Your task to perform on an android device: Empty the shopping cart on target. Add "logitech g910" to the cart on target, then select checkout. Image 0: 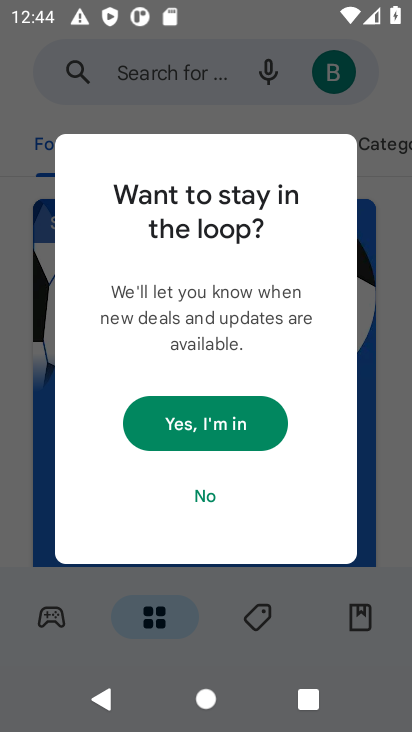
Step 0: press home button
Your task to perform on an android device: Empty the shopping cart on target. Add "logitech g910" to the cart on target, then select checkout. Image 1: 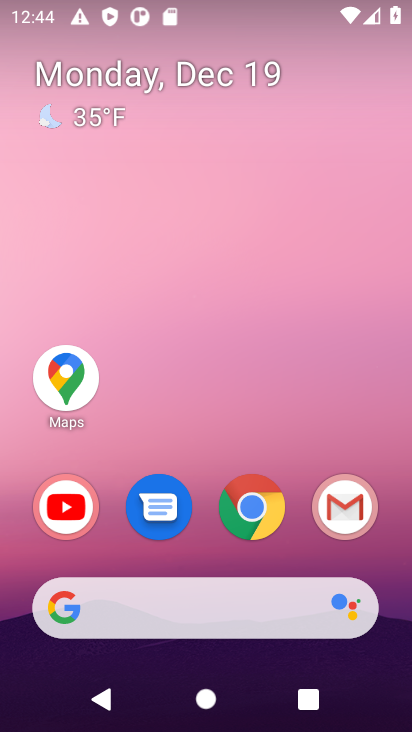
Step 1: click (263, 511)
Your task to perform on an android device: Empty the shopping cart on target. Add "logitech g910" to the cart on target, then select checkout. Image 2: 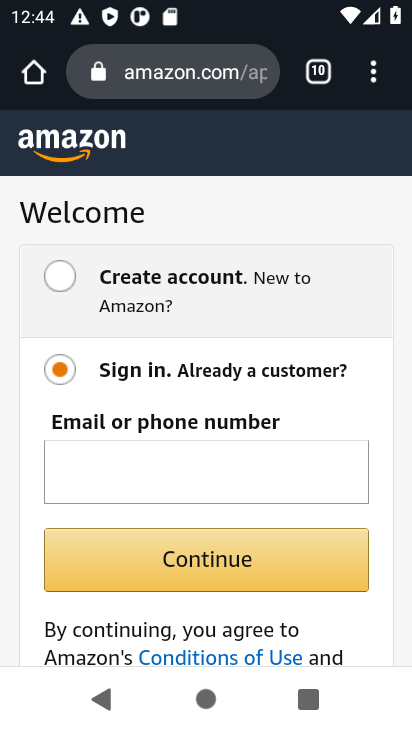
Step 2: click (162, 66)
Your task to perform on an android device: Empty the shopping cart on target. Add "logitech g910" to the cart on target, then select checkout. Image 3: 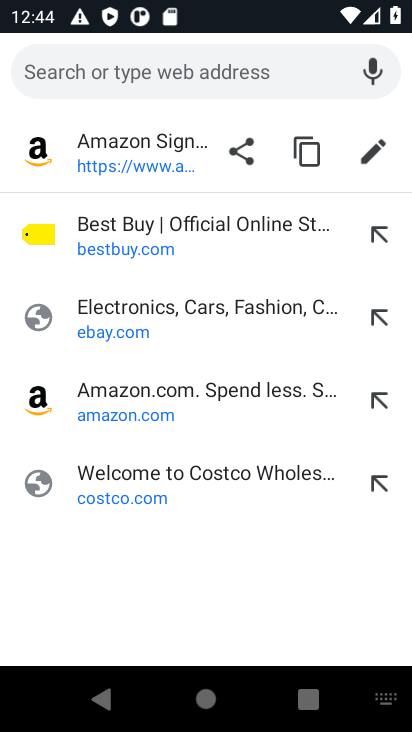
Step 3: type "target.com"
Your task to perform on an android device: Empty the shopping cart on target. Add "logitech g910" to the cart on target, then select checkout. Image 4: 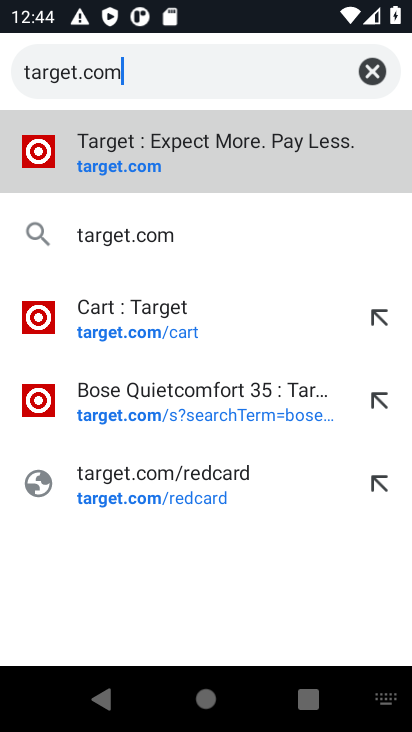
Step 4: click (95, 164)
Your task to perform on an android device: Empty the shopping cart on target. Add "logitech g910" to the cart on target, then select checkout. Image 5: 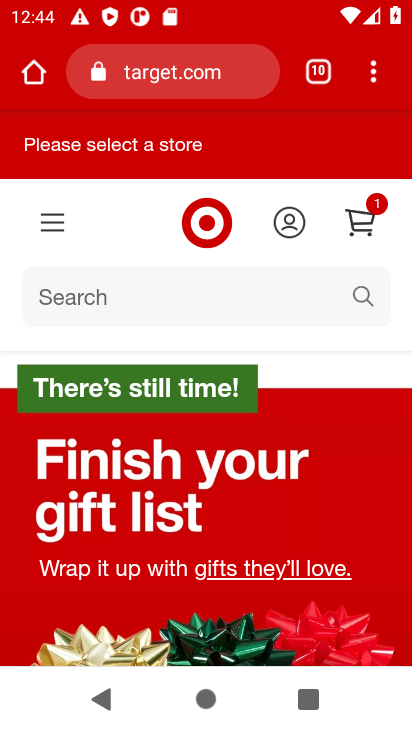
Step 5: click (366, 219)
Your task to perform on an android device: Empty the shopping cart on target. Add "logitech g910" to the cart on target, then select checkout. Image 6: 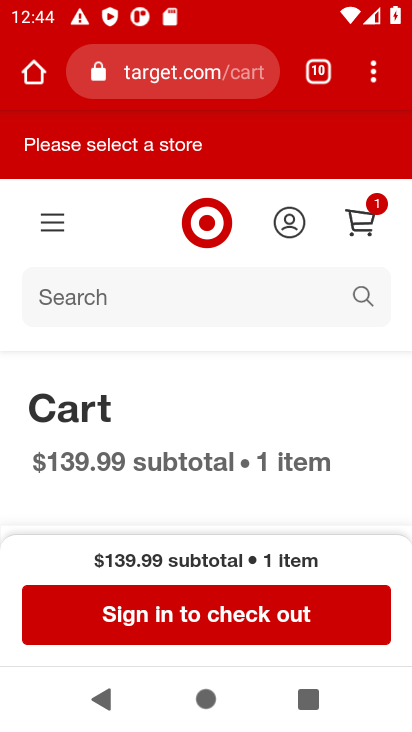
Step 6: drag from (233, 426) to (250, 165)
Your task to perform on an android device: Empty the shopping cart on target. Add "logitech g910" to the cart on target, then select checkout. Image 7: 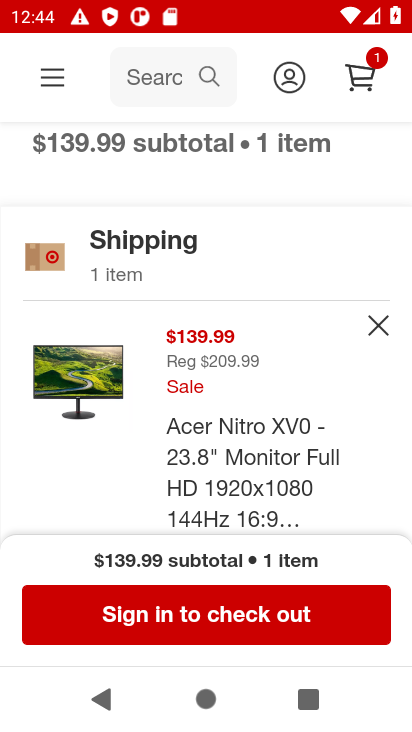
Step 7: click (378, 325)
Your task to perform on an android device: Empty the shopping cart on target. Add "logitech g910" to the cart on target, then select checkout. Image 8: 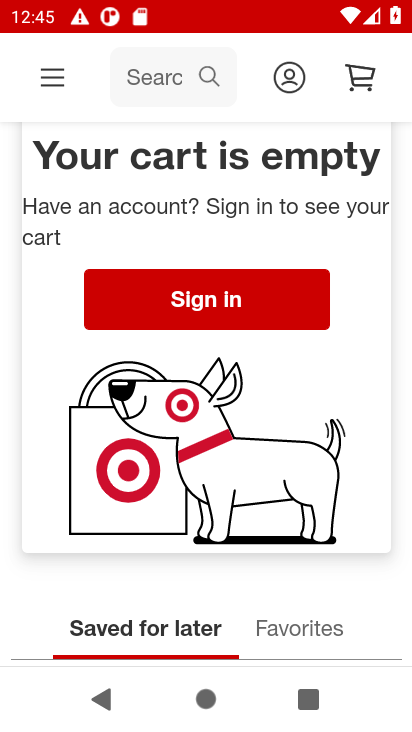
Step 8: drag from (236, 237) to (197, 445)
Your task to perform on an android device: Empty the shopping cart on target. Add "logitech g910" to the cart on target, then select checkout. Image 9: 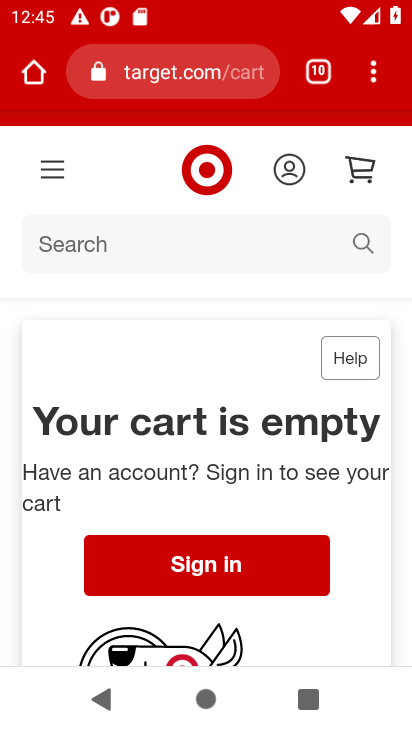
Step 9: click (49, 244)
Your task to perform on an android device: Empty the shopping cart on target. Add "logitech g910" to the cart on target, then select checkout. Image 10: 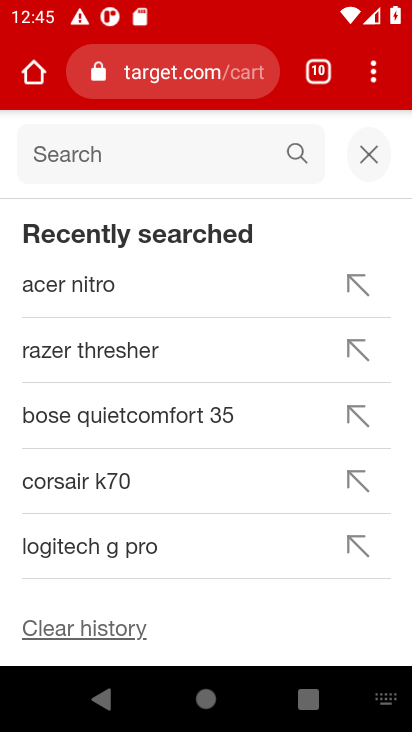
Step 10: type "logitech g910"
Your task to perform on an android device: Empty the shopping cart on target. Add "logitech g910" to the cart on target, then select checkout. Image 11: 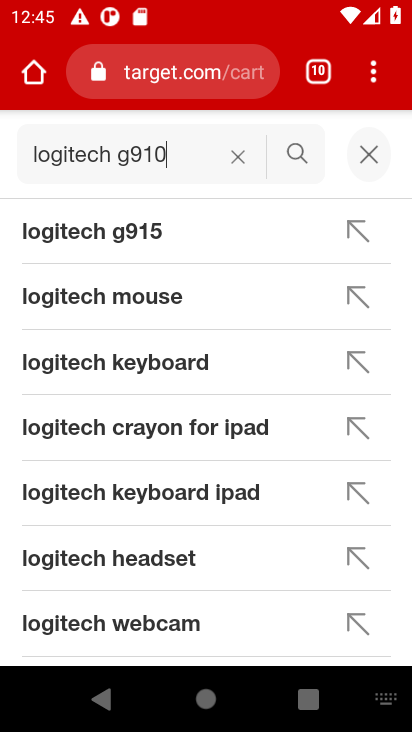
Step 11: click (292, 159)
Your task to perform on an android device: Empty the shopping cart on target. Add "logitech g910" to the cart on target, then select checkout. Image 12: 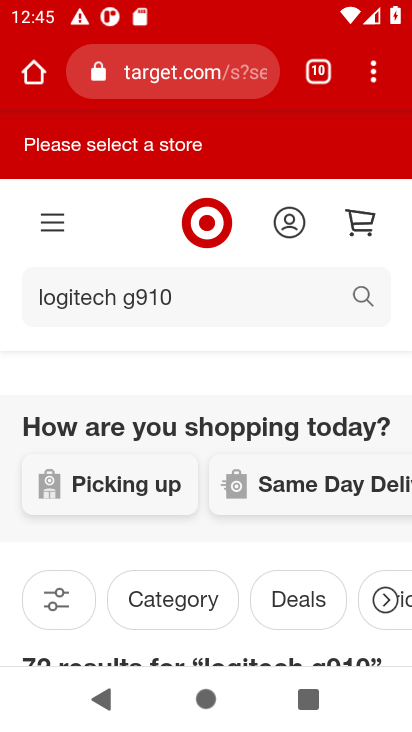
Step 12: task complete